Your task to perform on an android device: turn on improve location accuracy Image 0: 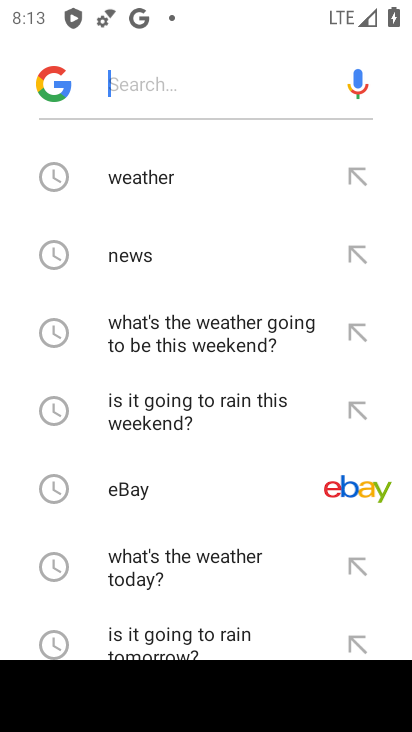
Step 0: press home button
Your task to perform on an android device: turn on improve location accuracy Image 1: 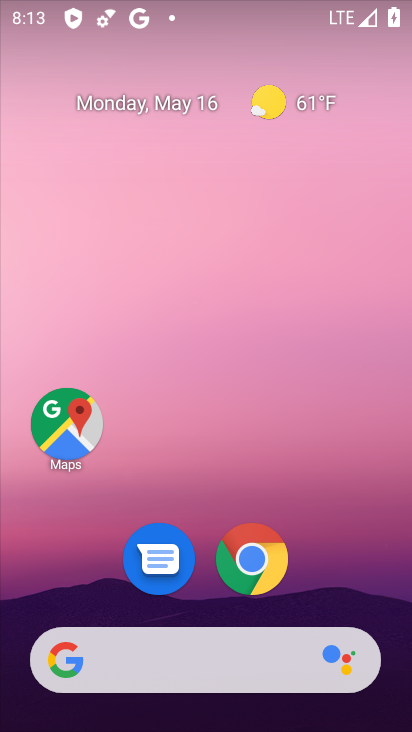
Step 1: drag from (207, 585) to (230, 0)
Your task to perform on an android device: turn on improve location accuracy Image 2: 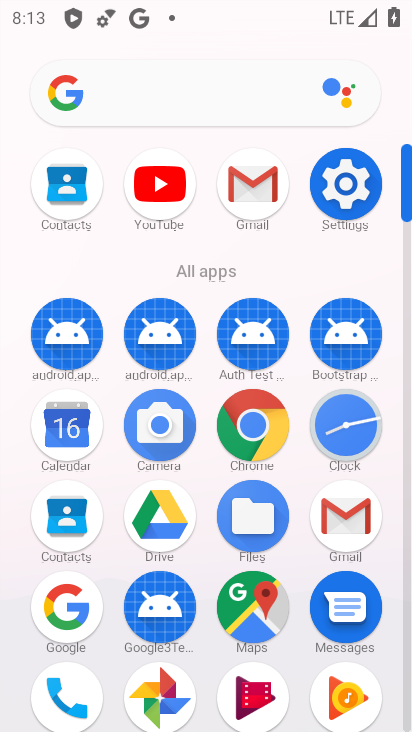
Step 2: click (339, 182)
Your task to perform on an android device: turn on improve location accuracy Image 3: 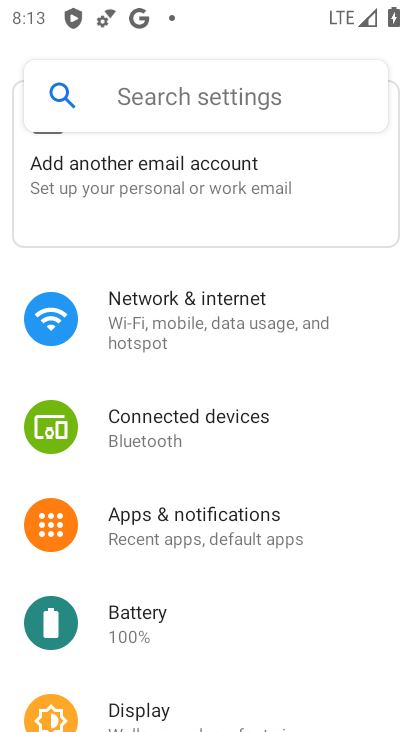
Step 3: drag from (217, 657) to (272, 208)
Your task to perform on an android device: turn on improve location accuracy Image 4: 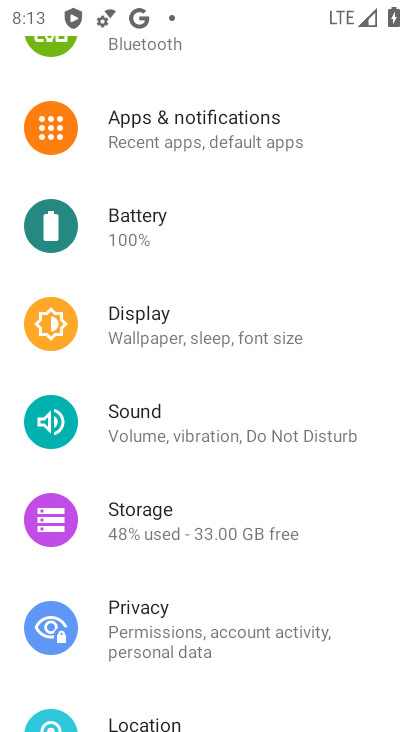
Step 4: drag from (154, 666) to (201, 419)
Your task to perform on an android device: turn on improve location accuracy Image 5: 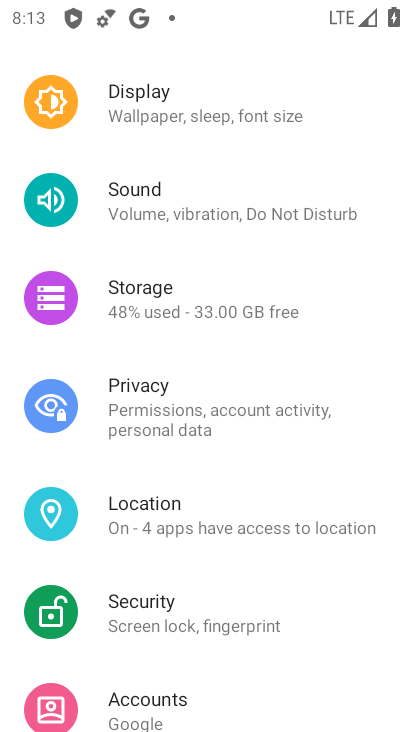
Step 5: click (168, 509)
Your task to perform on an android device: turn on improve location accuracy Image 6: 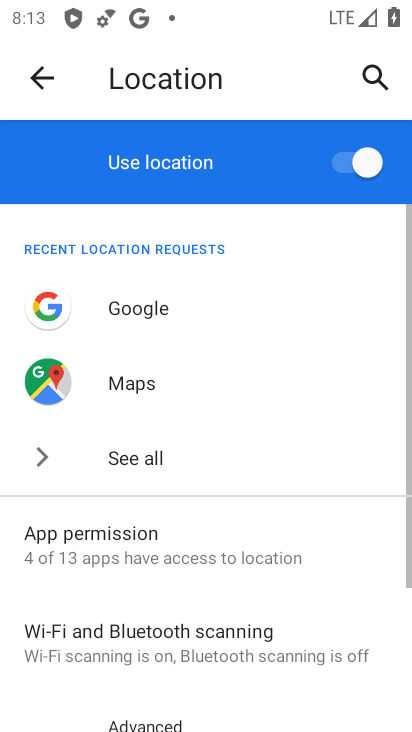
Step 6: drag from (197, 633) to (243, 247)
Your task to perform on an android device: turn on improve location accuracy Image 7: 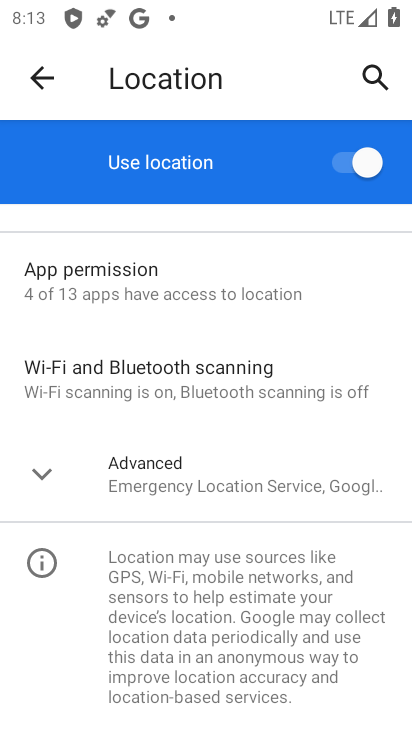
Step 7: click (210, 468)
Your task to perform on an android device: turn on improve location accuracy Image 8: 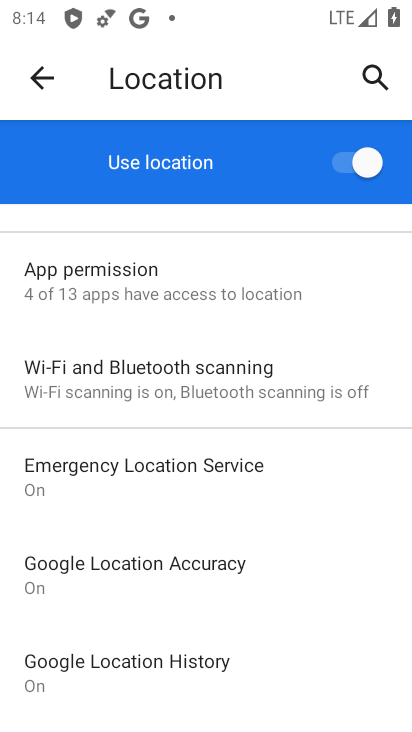
Step 8: click (203, 573)
Your task to perform on an android device: turn on improve location accuracy Image 9: 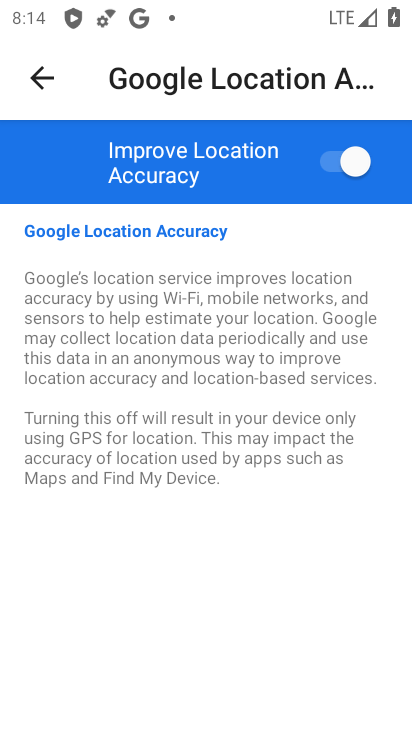
Step 9: task complete